Your task to perform on an android device: toggle javascript in the chrome app Image 0: 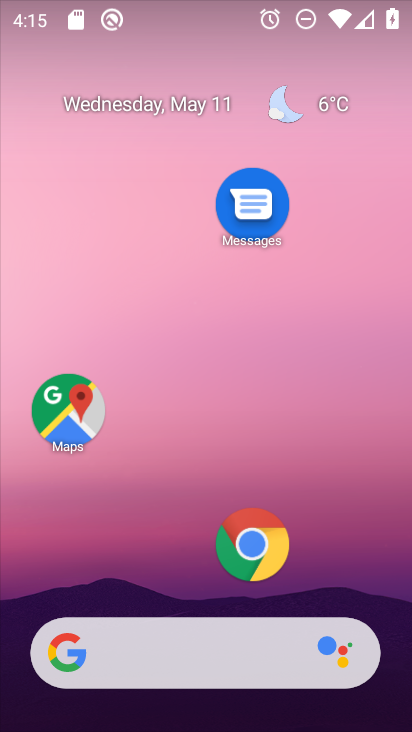
Step 0: click (266, 546)
Your task to perform on an android device: toggle javascript in the chrome app Image 1: 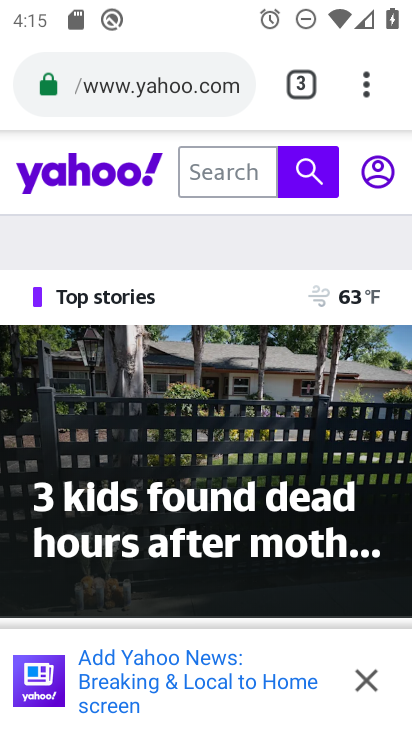
Step 1: drag from (365, 75) to (135, 600)
Your task to perform on an android device: toggle javascript in the chrome app Image 2: 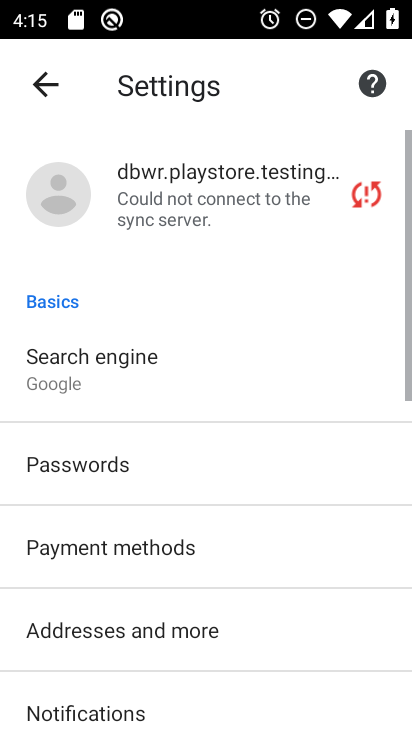
Step 2: drag from (152, 601) to (264, 104)
Your task to perform on an android device: toggle javascript in the chrome app Image 3: 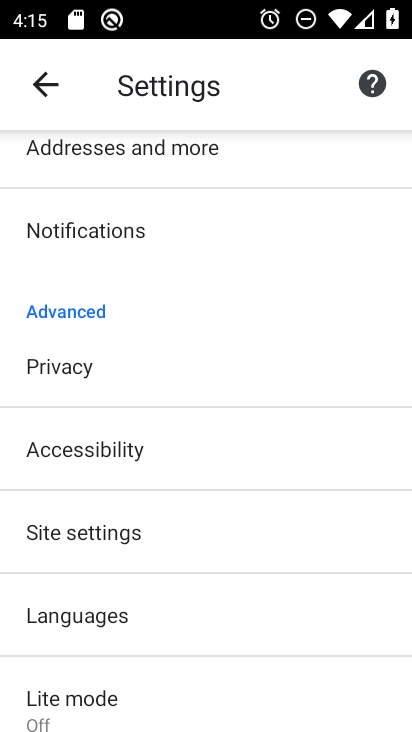
Step 3: drag from (136, 629) to (247, 230)
Your task to perform on an android device: toggle javascript in the chrome app Image 4: 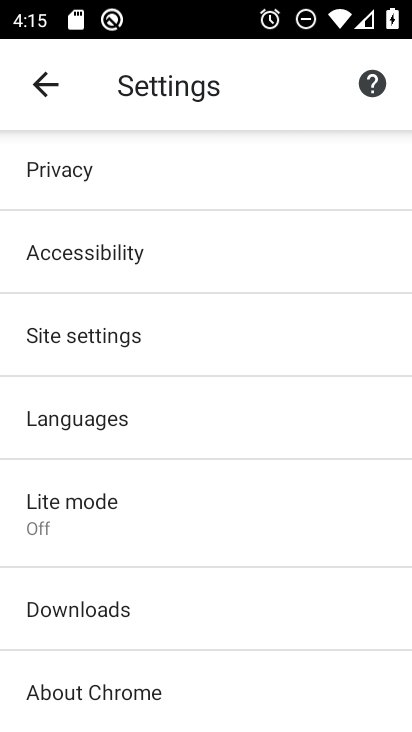
Step 4: click (101, 327)
Your task to perform on an android device: toggle javascript in the chrome app Image 5: 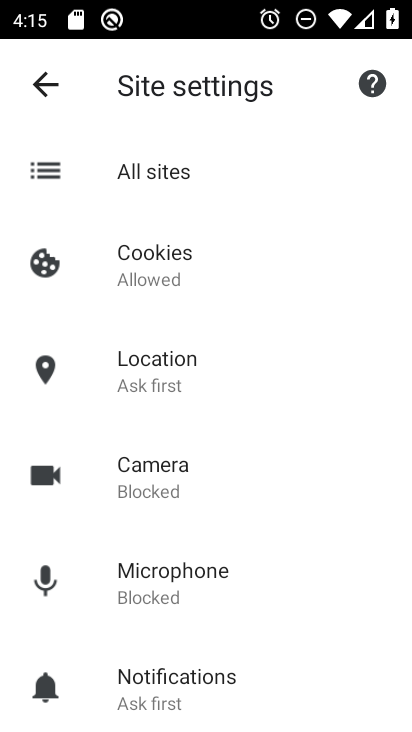
Step 5: drag from (202, 610) to (312, 85)
Your task to perform on an android device: toggle javascript in the chrome app Image 6: 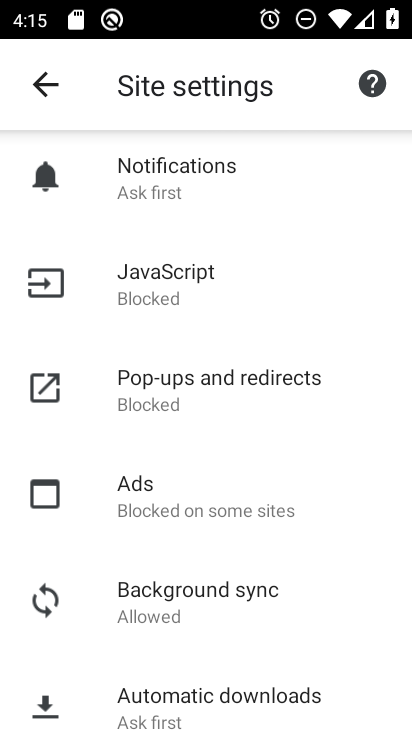
Step 6: click (158, 277)
Your task to perform on an android device: toggle javascript in the chrome app Image 7: 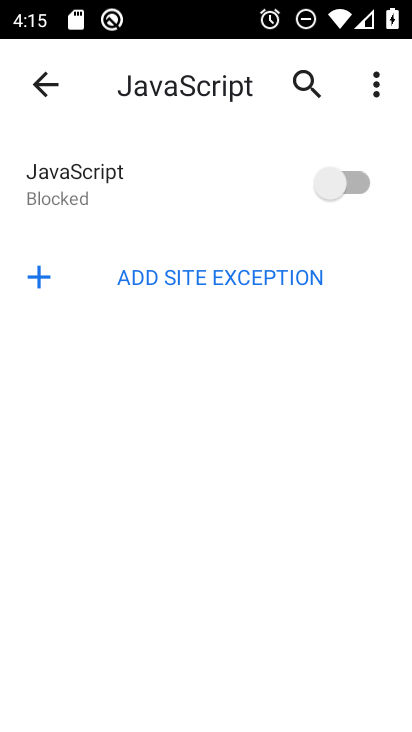
Step 7: click (334, 186)
Your task to perform on an android device: toggle javascript in the chrome app Image 8: 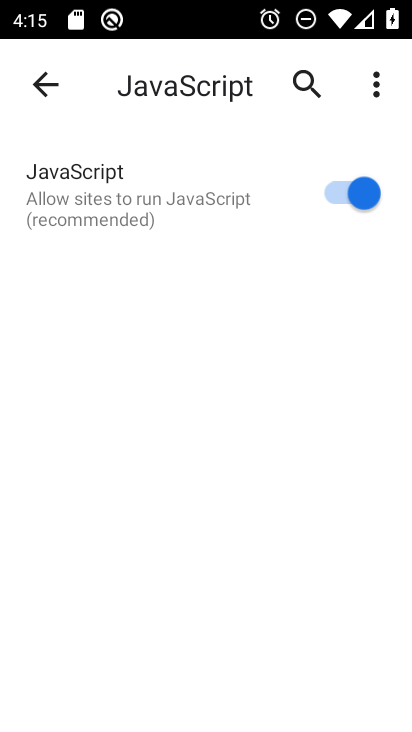
Step 8: task complete